Your task to perform on an android device: delete a single message in the gmail app Image 0: 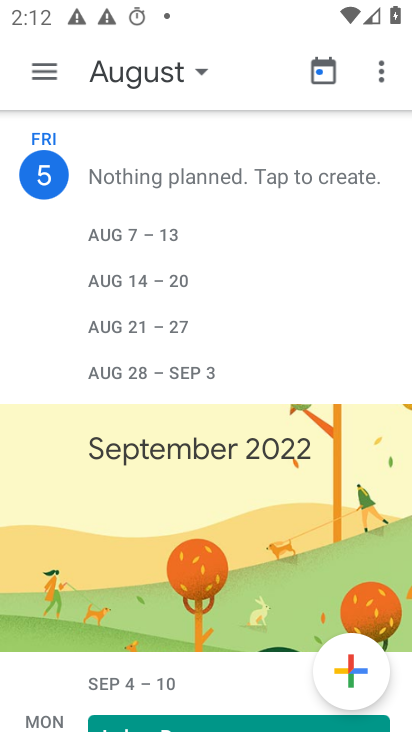
Step 0: press home button
Your task to perform on an android device: delete a single message in the gmail app Image 1: 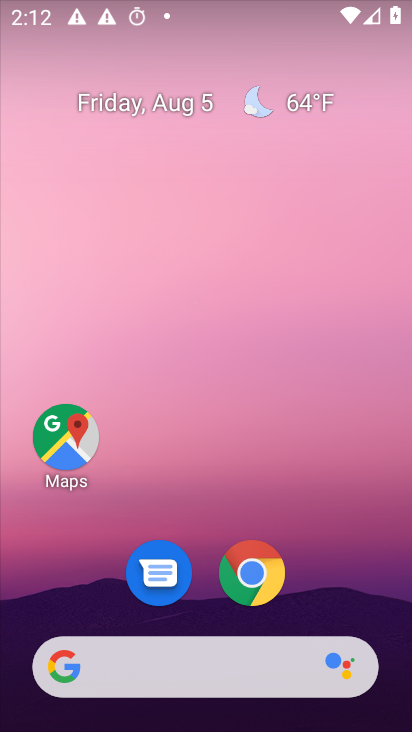
Step 1: drag from (354, 598) to (329, 231)
Your task to perform on an android device: delete a single message in the gmail app Image 2: 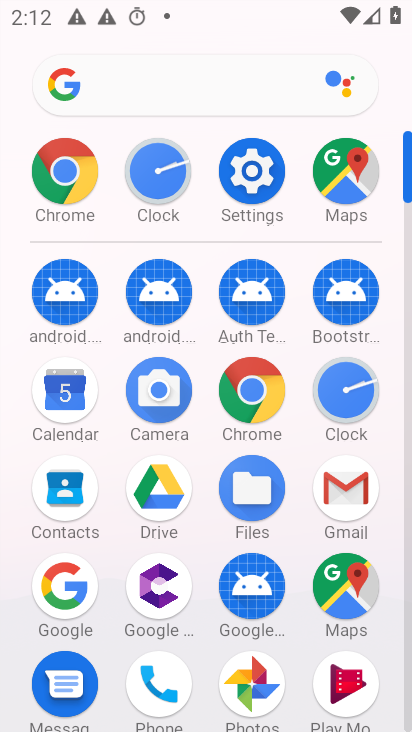
Step 2: click (361, 483)
Your task to perform on an android device: delete a single message in the gmail app Image 3: 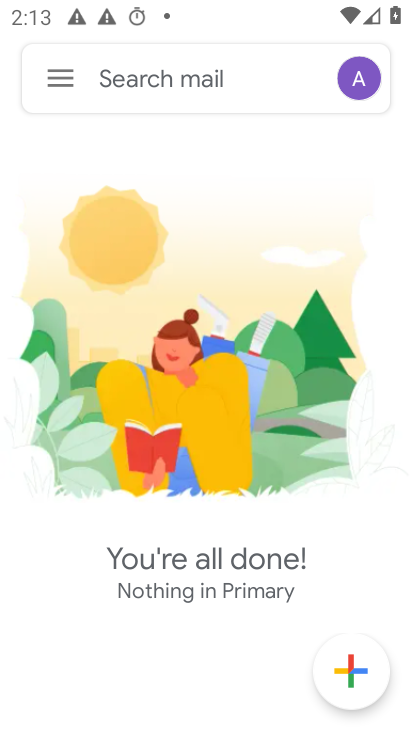
Step 3: task complete